Your task to perform on an android device: Open battery settings Image 0: 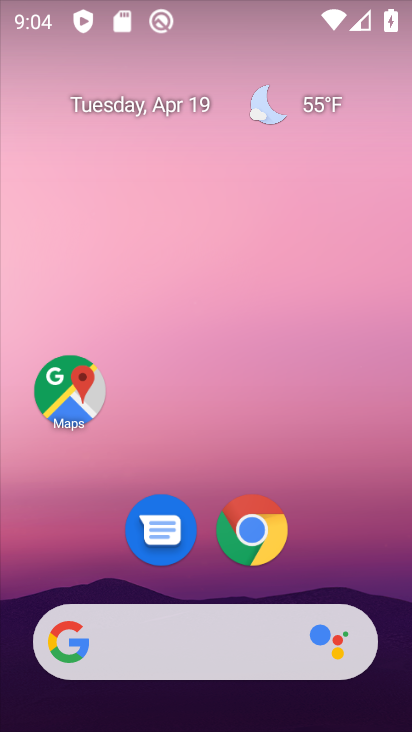
Step 0: drag from (204, 480) to (226, 134)
Your task to perform on an android device: Open battery settings Image 1: 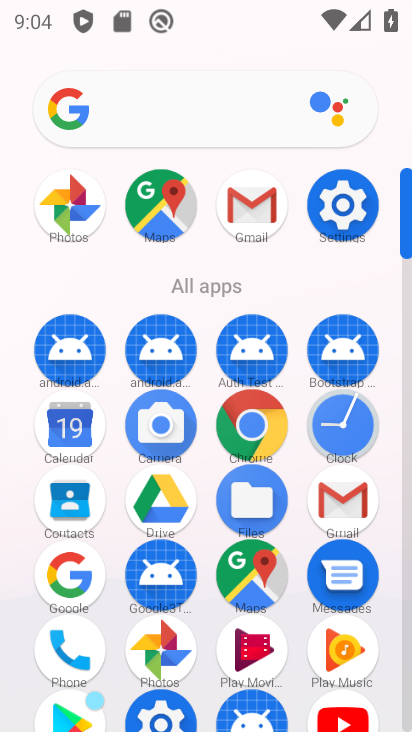
Step 1: click (336, 203)
Your task to perform on an android device: Open battery settings Image 2: 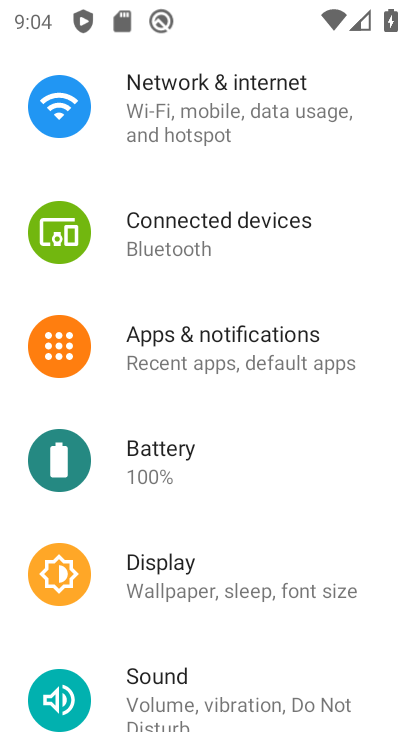
Step 2: click (156, 457)
Your task to perform on an android device: Open battery settings Image 3: 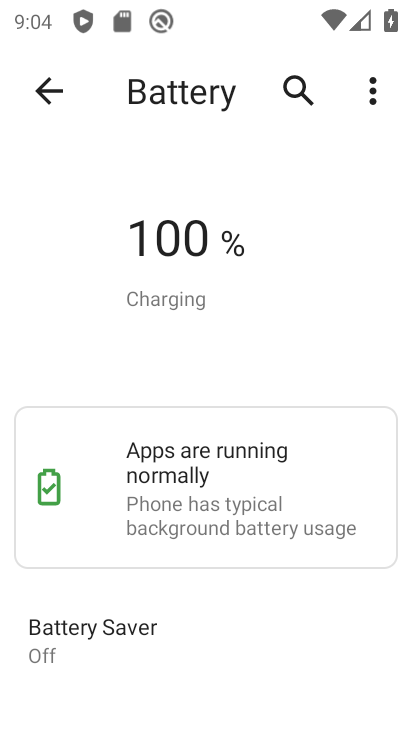
Step 3: task complete